Your task to perform on an android device: change text size in settings app Image 0: 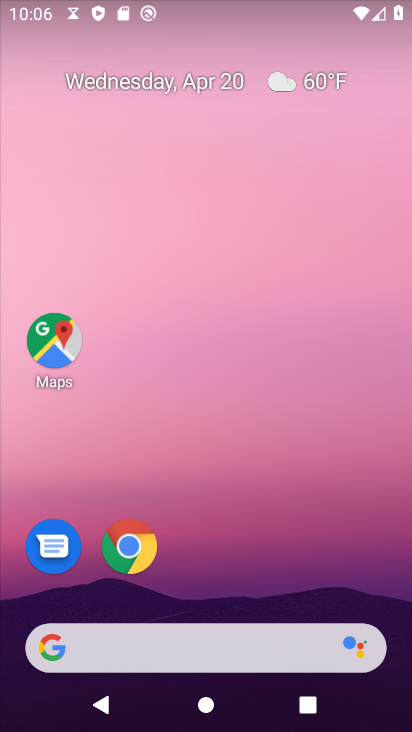
Step 0: drag from (211, 410) to (208, 27)
Your task to perform on an android device: change text size in settings app Image 1: 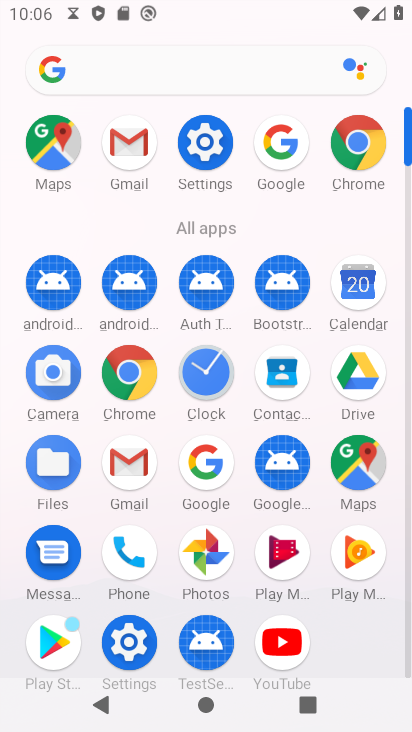
Step 1: click (204, 144)
Your task to perform on an android device: change text size in settings app Image 2: 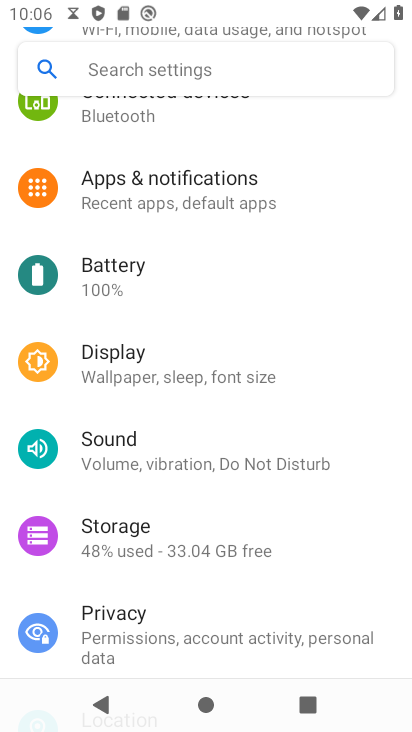
Step 2: drag from (249, 467) to (254, 163)
Your task to perform on an android device: change text size in settings app Image 3: 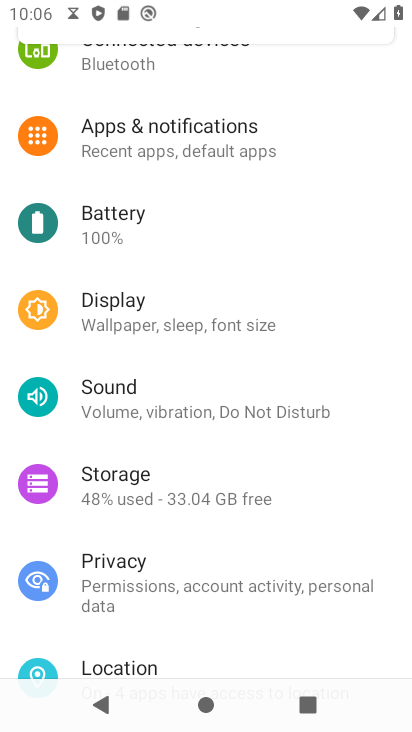
Step 3: drag from (215, 524) to (210, 238)
Your task to perform on an android device: change text size in settings app Image 4: 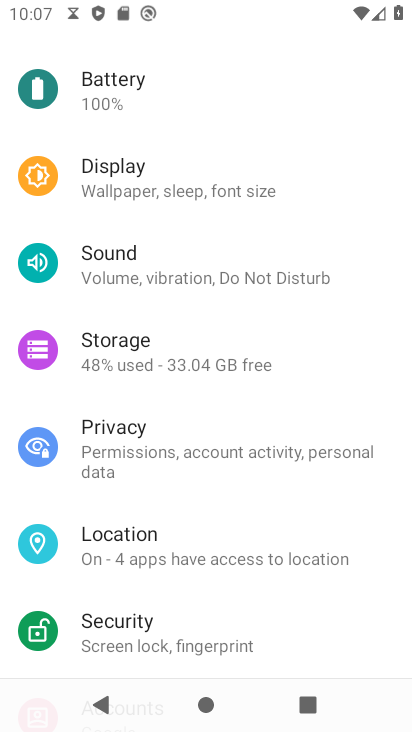
Step 4: click (168, 171)
Your task to perform on an android device: change text size in settings app Image 5: 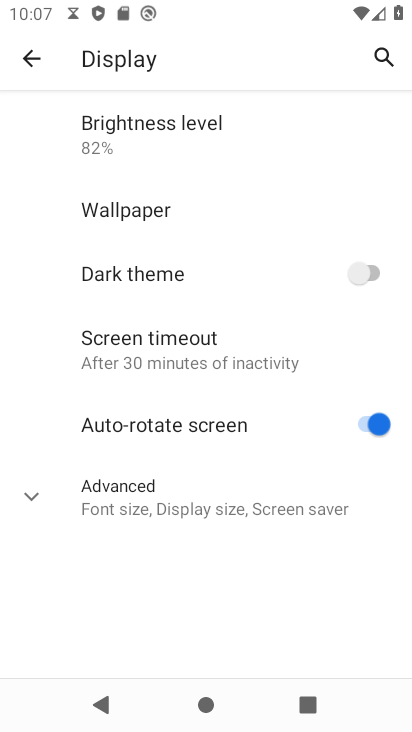
Step 5: click (202, 493)
Your task to perform on an android device: change text size in settings app Image 6: 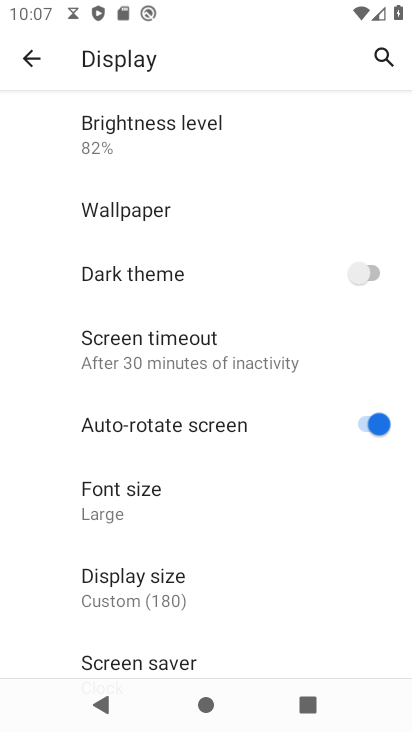
Step 6: click (174, 506)
Your task to perform on an android device: change text size in settings app Image 7: 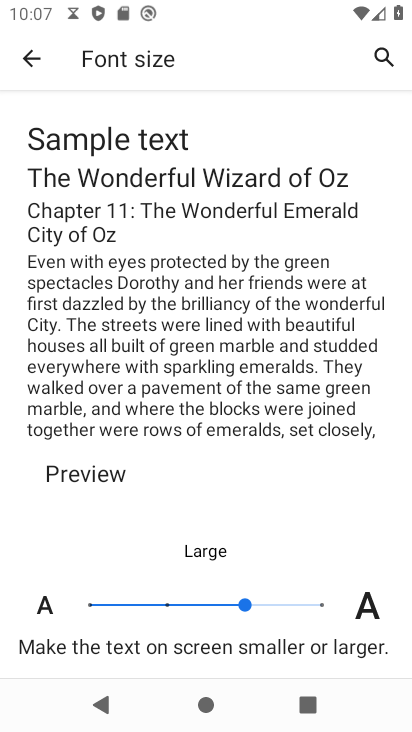
Step 7: click (321, 604)
Your task to perform on an android device: change text size in settings app Image 8: 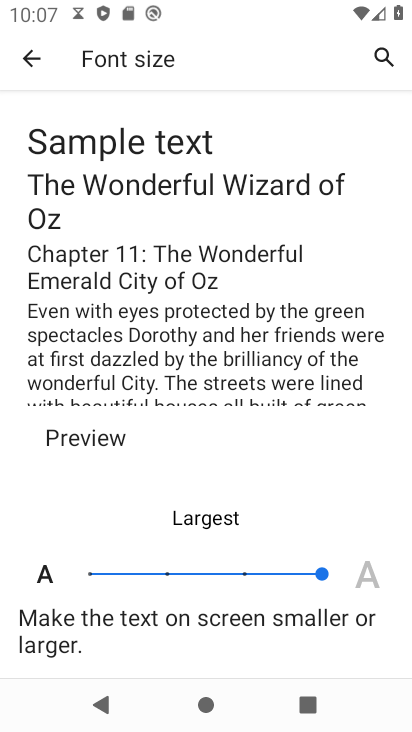
Step 8: task complete